Your task to perform on an android device: turn pop-ups on in chrome Image 0: 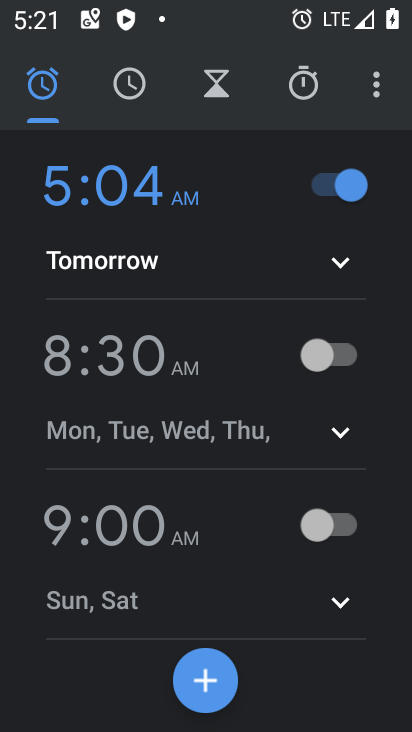
Step 0: click (230, 640)
Your task to perform on an android device: turn pop-ups on in chrome Image 1: 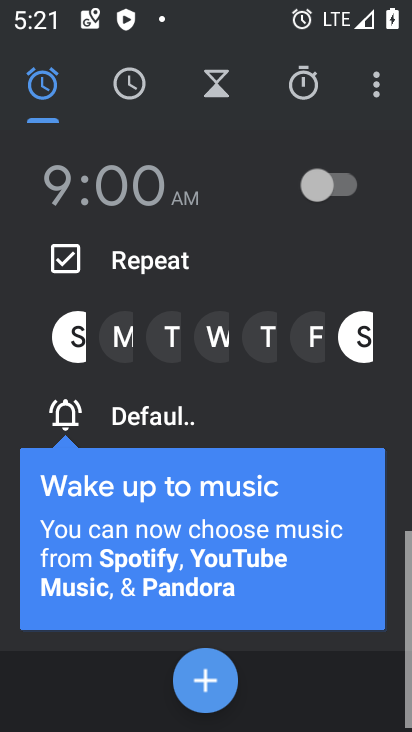
Step 1: press home button
Your task to perform on an android device: turn pop-ups on in chrome Image 2: 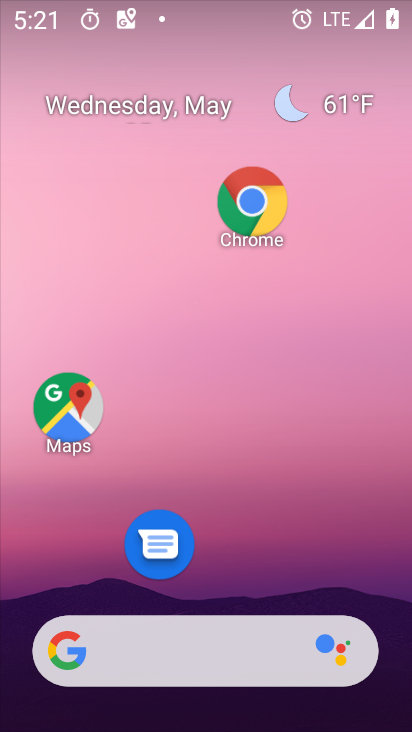
Step 2: click (265, 198)
Your task to perform on an android device: turn pop-ups on in chrome Image 3: 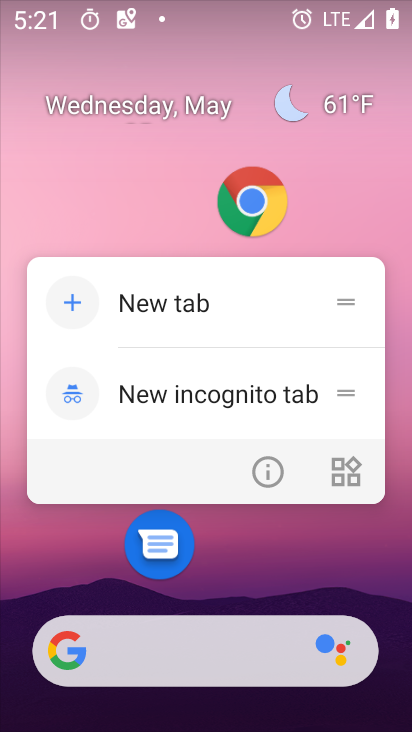
Step 3: click (265, 198)
Your task to perform on an android device: turn pop-ups on in chrome Image 4: 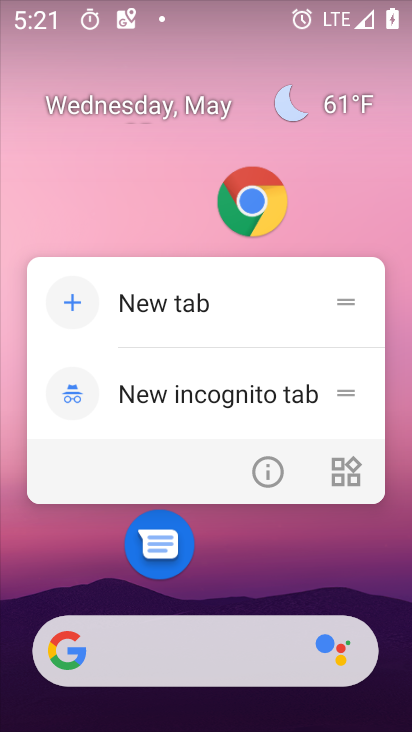
Step 4: click (261, 213)
Your task to perform on an android device: turn pop-ups on in chrome Image 5: 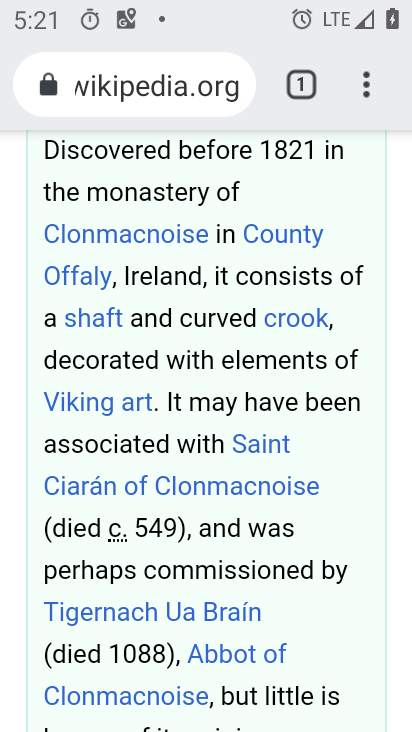
Step 5: click (369, 78)
Your task to perform on an android device: turn pop-ups on in chrome Image 6: 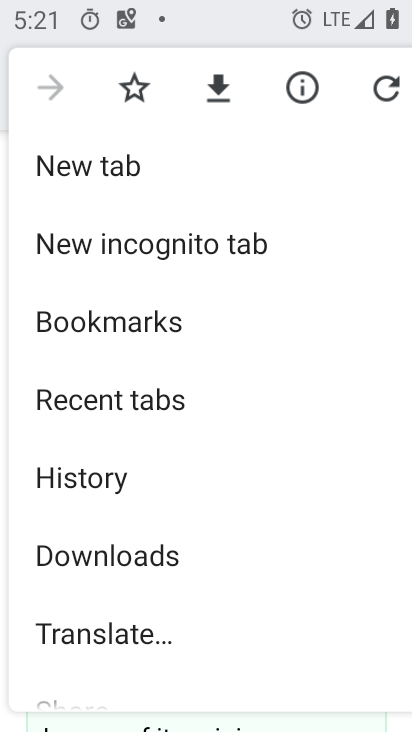
Step 6: drag from (200, 620) to (259, 318)
Your task to perform on an android device: turn pop-ups on in chrome Image 7: 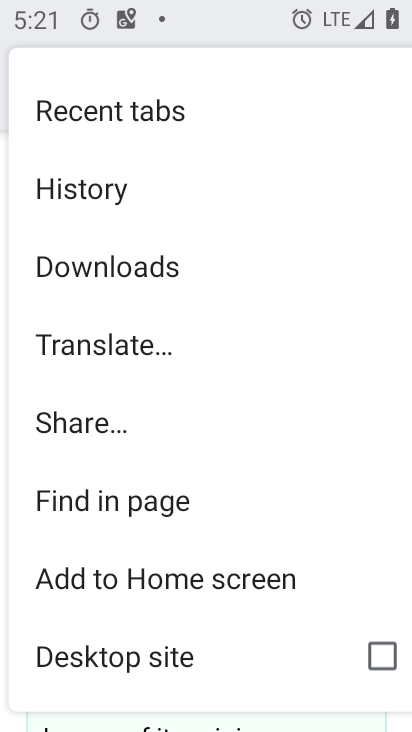
Step 7: drag from (136, 672) to (145, 329)
Your task to perform on an android device: turn pop-ups on in chrome Image 8: 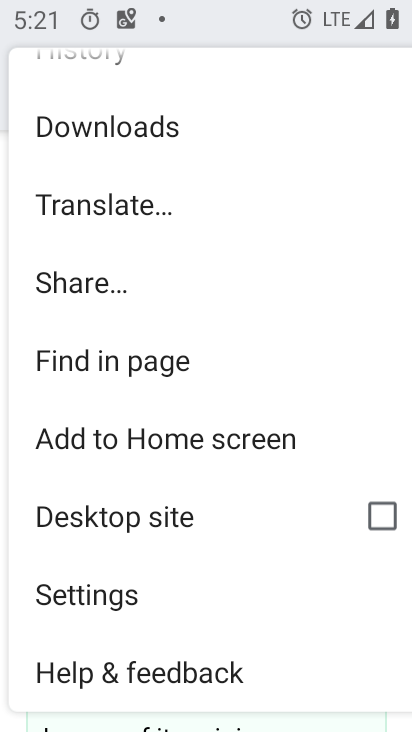
Step 8: click (118, 605)
Your task to perform on an android device: turn pop-ups on in chrome Image 9: 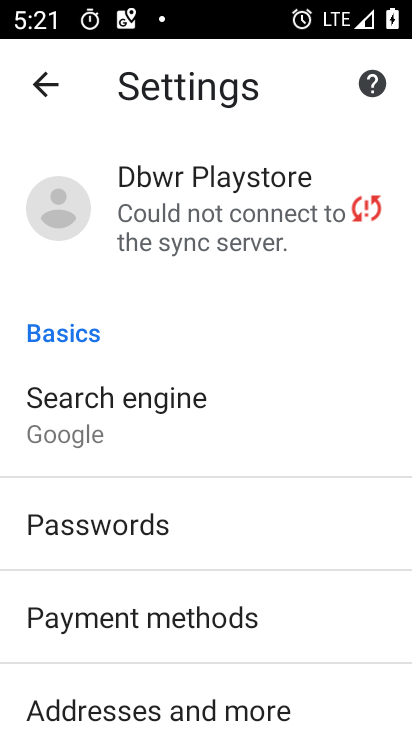
Step 9: drag from (177, 664) to (214, 291)
Your task to perform on an android device: turn pop-ups on in chrome Image 10: 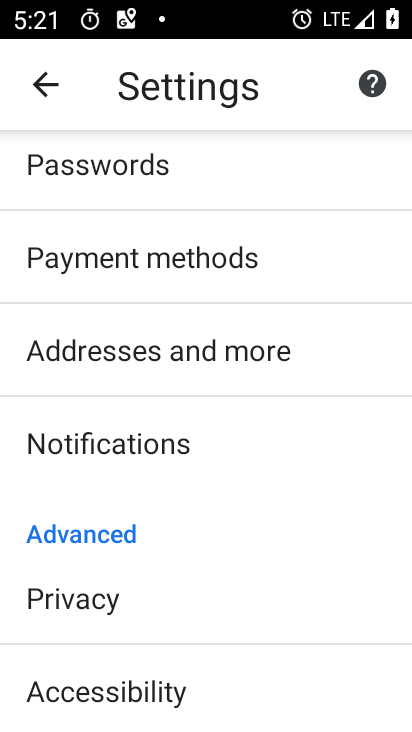
Step 10: drag from (154, 703) to (154, 422)
Your task to perform on an android device: turn pop-ups on in chrome Image 11: 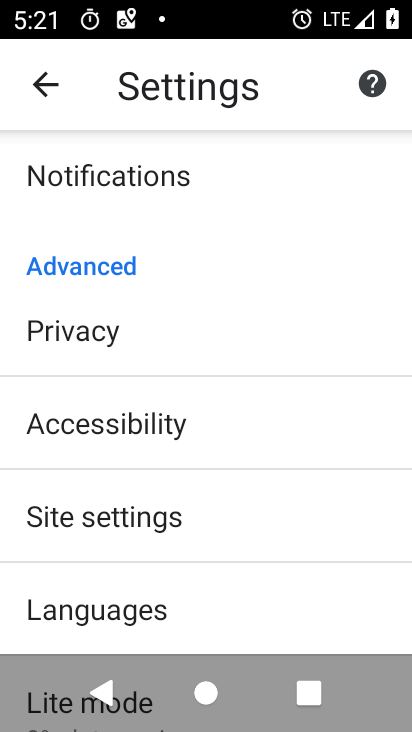
Step 11: click (110, 514)
Your task to perform on an android device: turn pop-ups on in chrome Image 12: 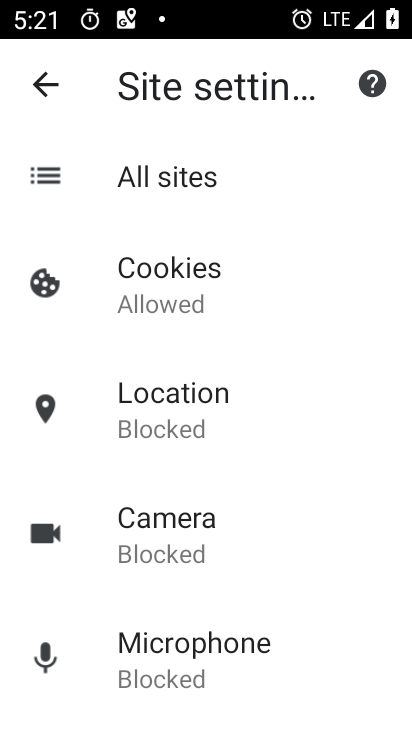
Step 12: drag from (218, 699) to (246, 421)
Your task to perform on an android device: turn pop-ups on in chrome Image 13: 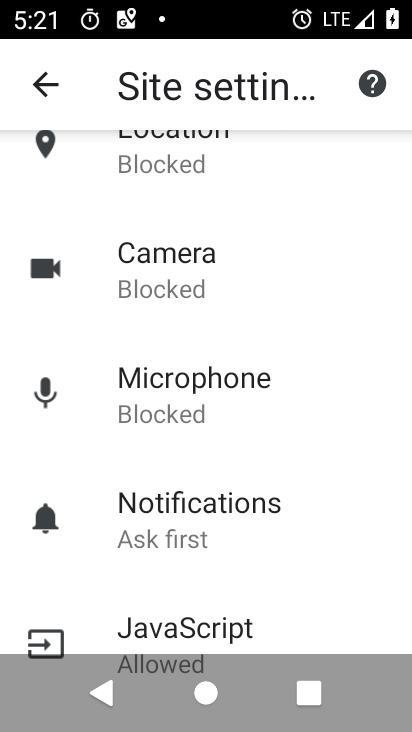
Step 13: drag from (224, 590) to (209, 250)
Your task to perform on an android device: turn pop-ups on in chrome Image 14: 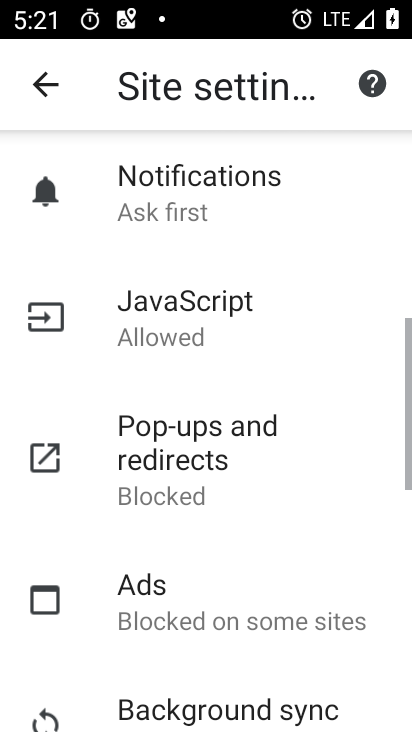
Step 14: click (153, 476)
Your task to perform on an android device: turn pop-ups on in chrome Image 15: 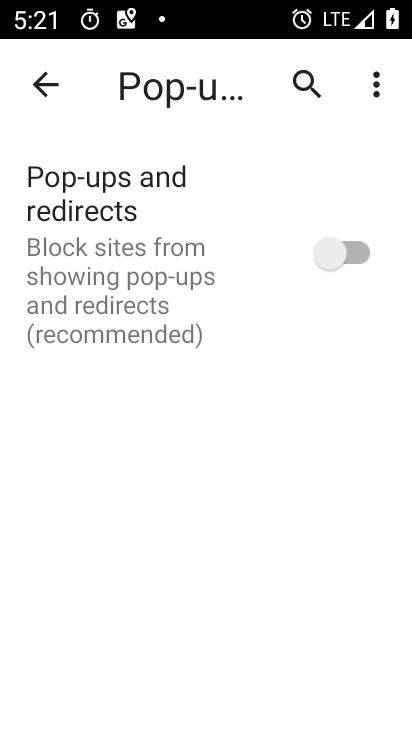
Step 15: click (354, 255)
Your task to perform on an android device: turn pop-ups on in chrome Image 16: 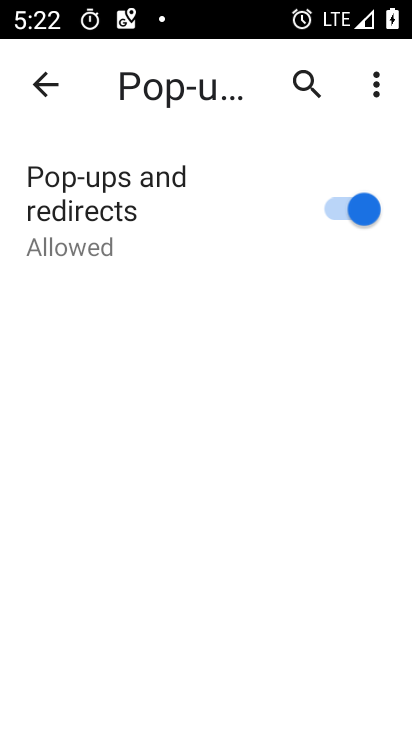
Step 16: task complete